Your task to perform on an android device: Is it going to rain this weekend? Image 0: 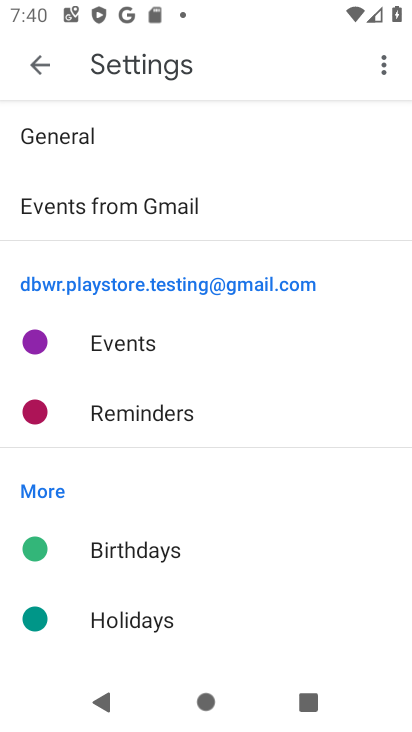
Step 0: press home button
Your task to perform on an android device: Is it going to rain this weekend? Image 1: 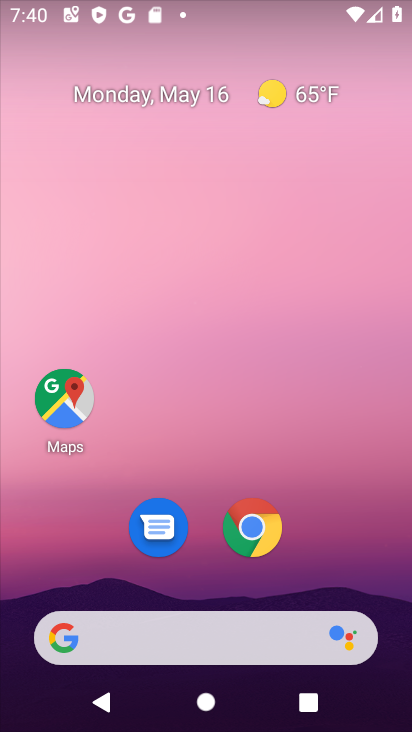
Step 1: drag from (182, 582) to (295, 138)
Your task to perform on an android device: Is it going to rain this weekend? Image 2: 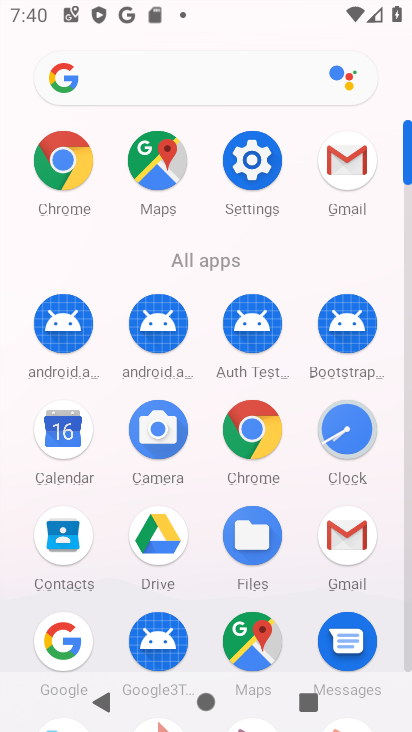
Step 2: click (247, 417)
Your task to perform on an android device: Is it going to rain this weekend? Image 3: 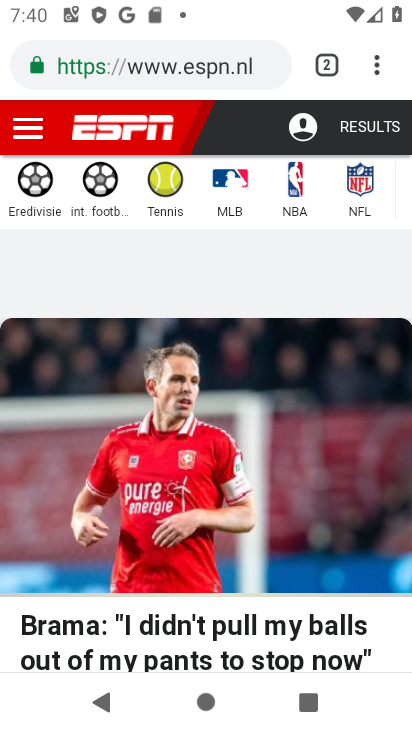
Step 3: click (364, 57)
Your task to perform on an android device: Is it going to rain this weekend? Image 4: 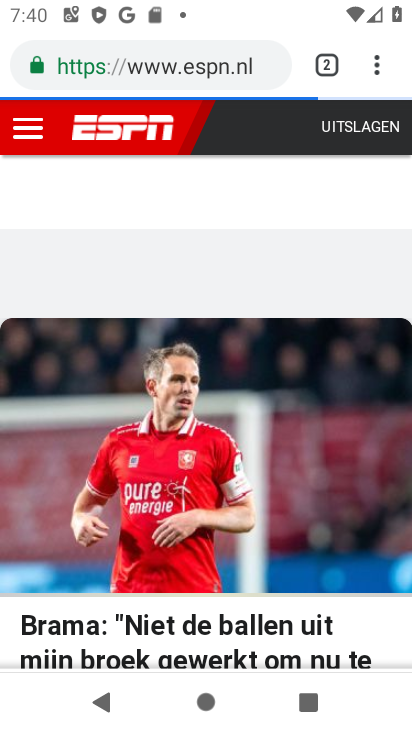
Step 4: click (359, 58)
Your task to perform on an android device: Is it going to rain this weekend? Image 5: 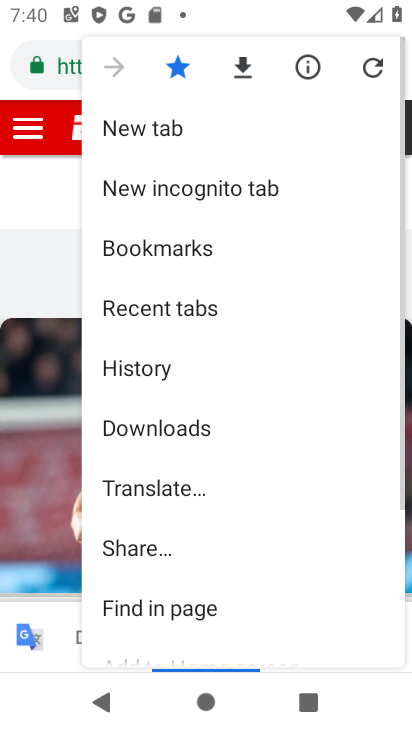
Step 5: click (167, 126)
Your task to perform on an android device: Is it going to rain this weekend? Image 6: 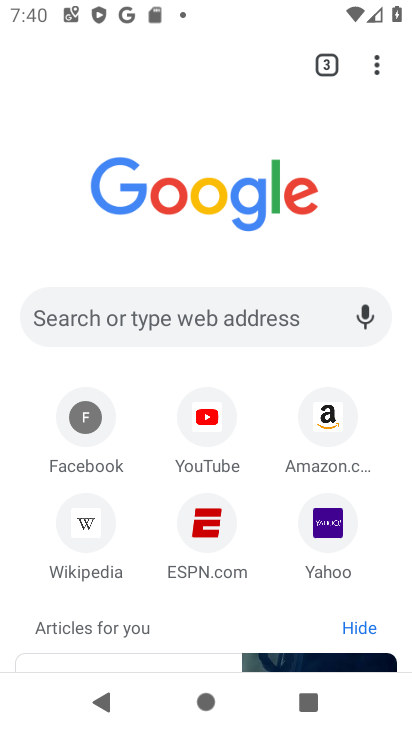
Step 6: click (92, 306)
Your task to perform on an android device: Is it going to rain this weekend? Image 7: 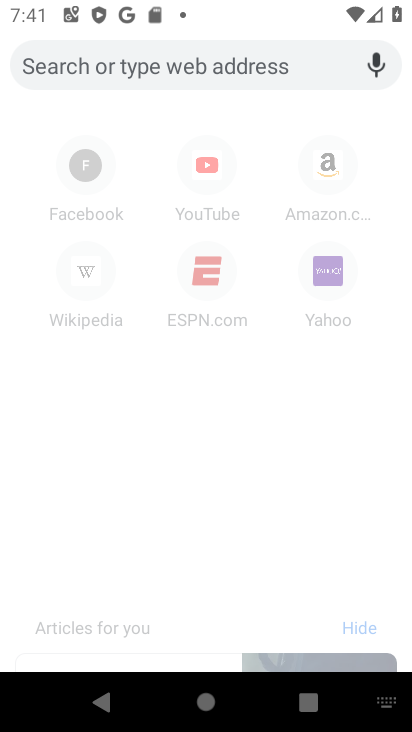
Step 7: type "Is it going to rain this weekend?"
Your task to perform on an android device: Is it going to rain this weekend? Image 8: 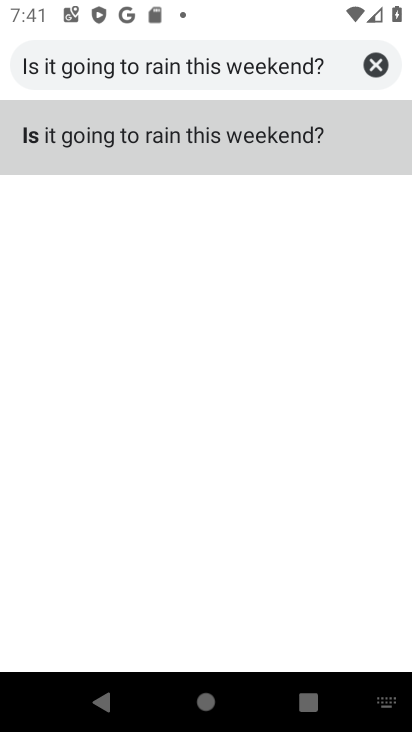
Step 8: click (152, 115)
Your task to perform on an android device: Is it going to rain this weekend? Image 9: 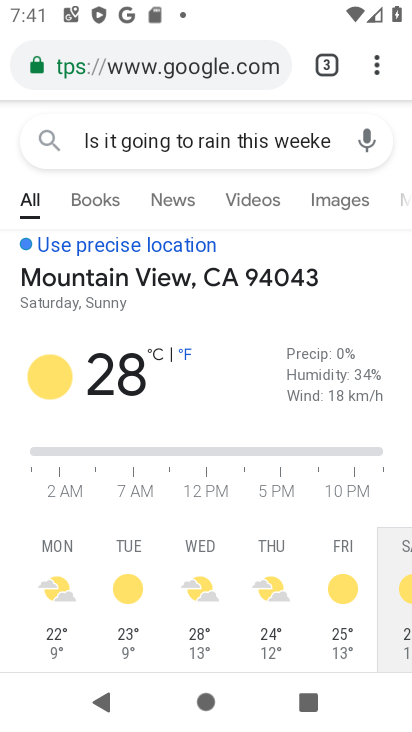
Step 9: task complete